Your task to perform on an android device: allow cookies in the chrome app Image 0: 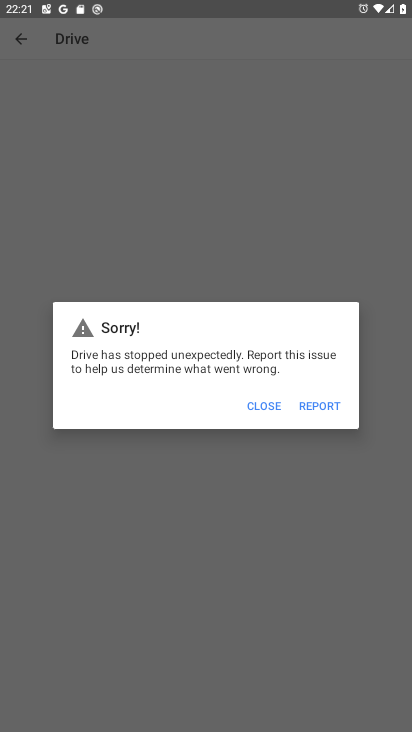
Step 0: press home button
Your task to perform on an android device: allow cookies in the chrome app Image 1: 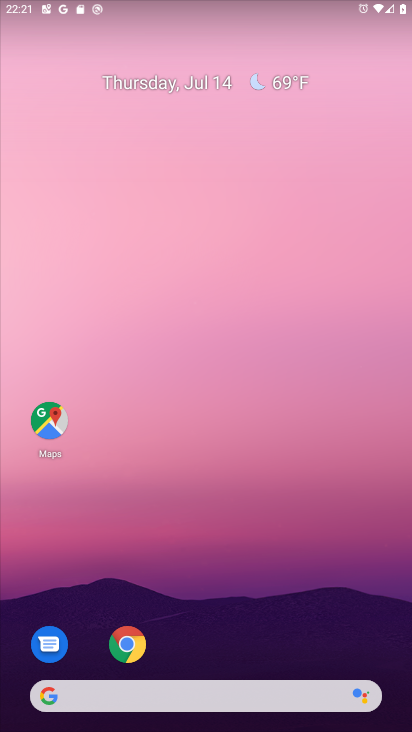
Step 1: click (124, 640)
Your task to perform on an android device: allow cookies in the chrome app Image 2: 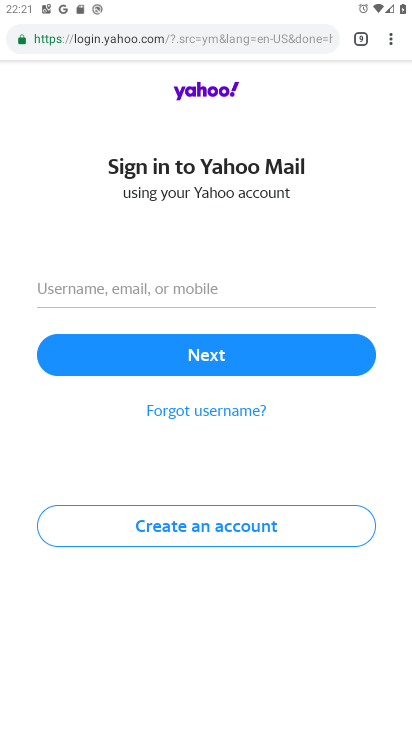
Step 2: click (384, 32)
Your task to perform on an android device: allow cookies in the chrome app Image 3: 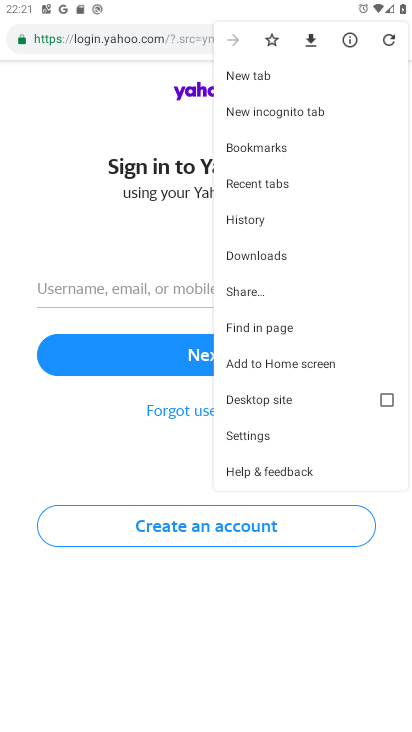
Step 3: click (257, 425)
Your task to perform on an android device: allow cookies in the chrome app Image 4: 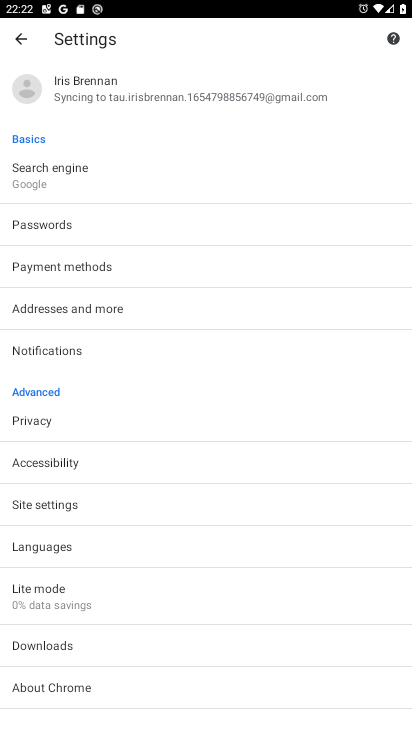
Step 4: click (184, 149)
Your task to perform on an android device: allow cookies in the chrome app Image 5: 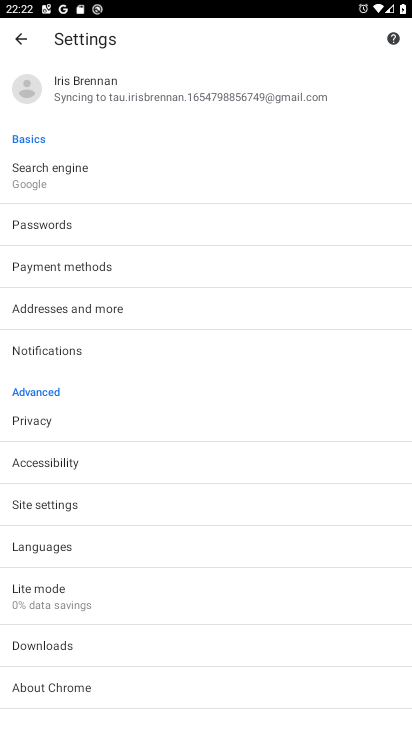
Step 5: drag from (107, 557) to (207, 89)
Your task to perform on an android device: allow cookies in the chrome app Image 6: 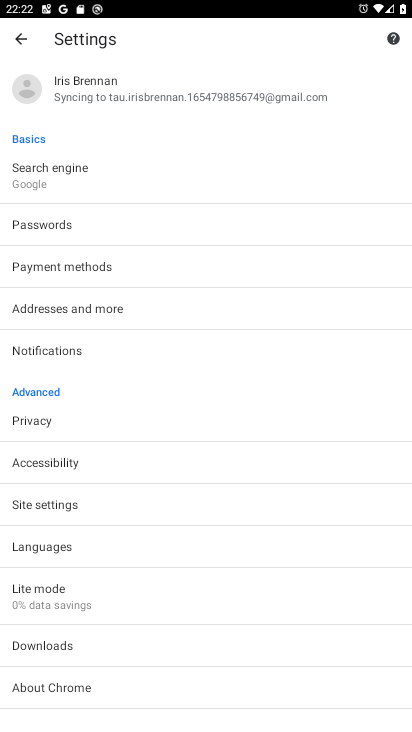
Step 6: click (120, 502)
Your task to perform on an android device: allow cookies in the chrome app Image 7: 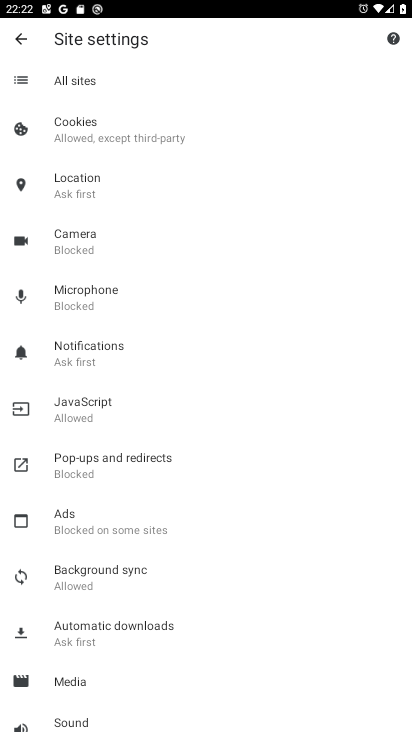
Step 7: click (205, 138)
Your task to perform on an android device: allow cookies in the chrome app Image 8: 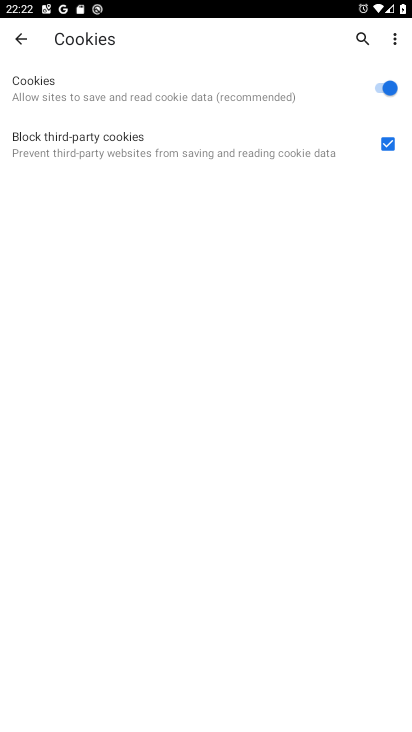
Step 8: task complete